Your task to perform on an android device: move an email to a new category in the gmail app Image 0: 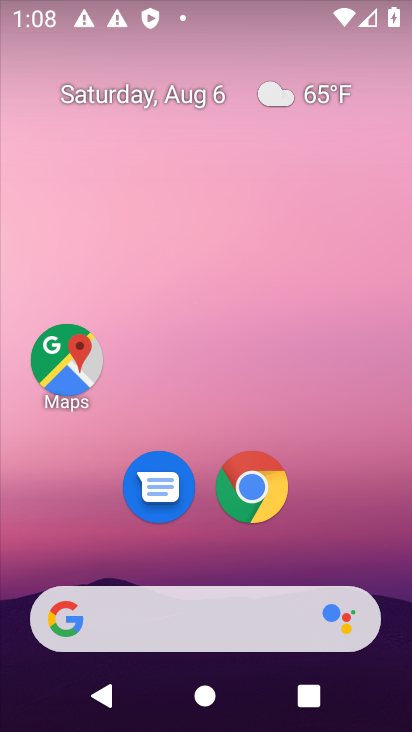
Step 0: drag from (258, 536) to (239, 117)
Your task to perform on an android device: move an email to a new category in the gmail app Image 1: 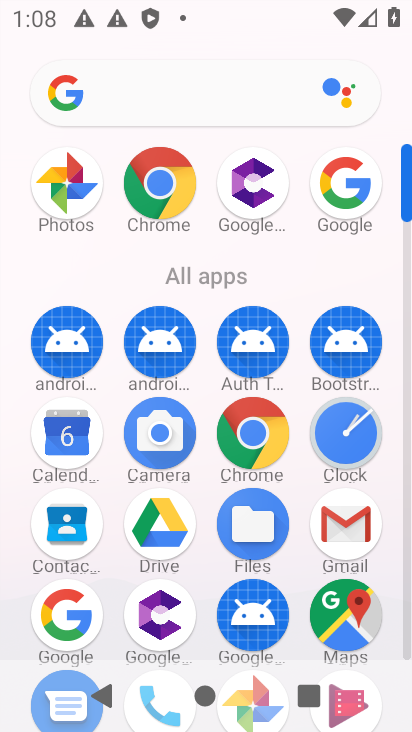
Step 1: click (346, 529)
Your task to perform on an android device: move an email to a new category in the gmail app Image 2: 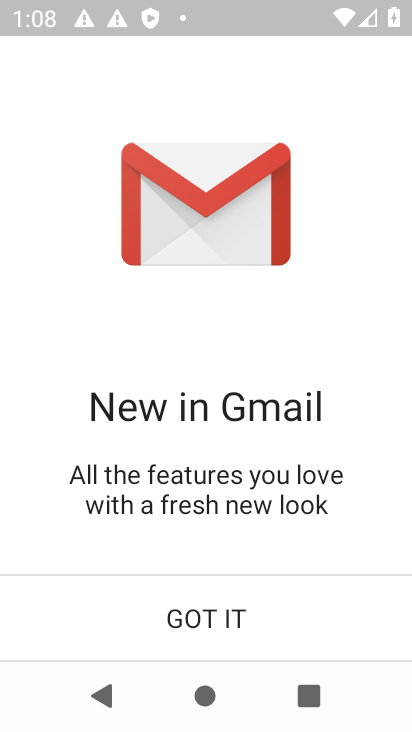
Step 2: click (213, 606)
Your task to perform on an android device: move an email to a new category in the gmail app Image 3: 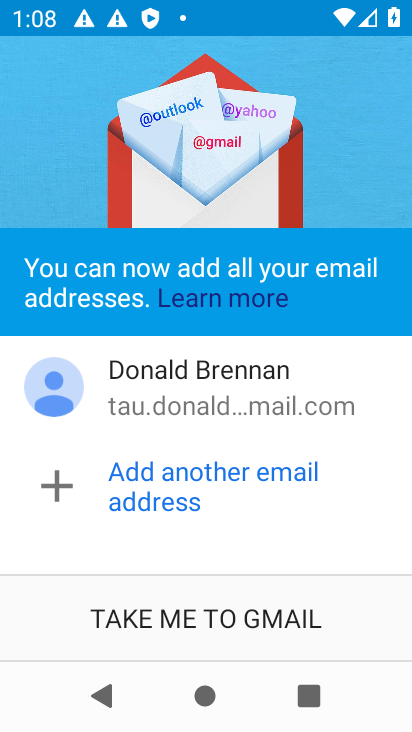
Step 3: click (158, 610)
Your task to perform on an android device: move an email to a new category in the gmail app Image 4: 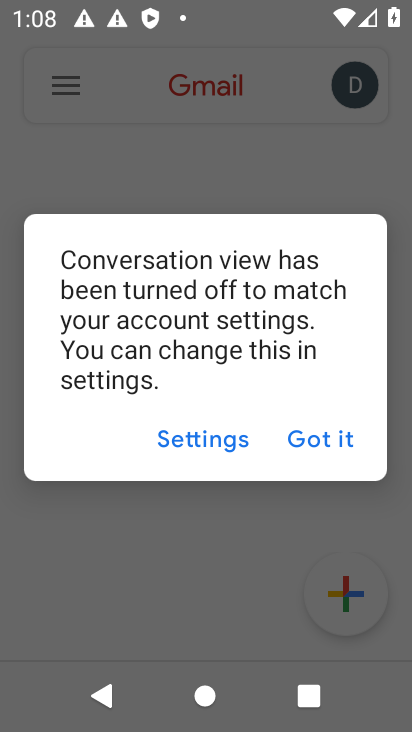
Step 4: click (301, 435)
Your task to perform on an android device: move an email to a new category in the gmail app Image 5: 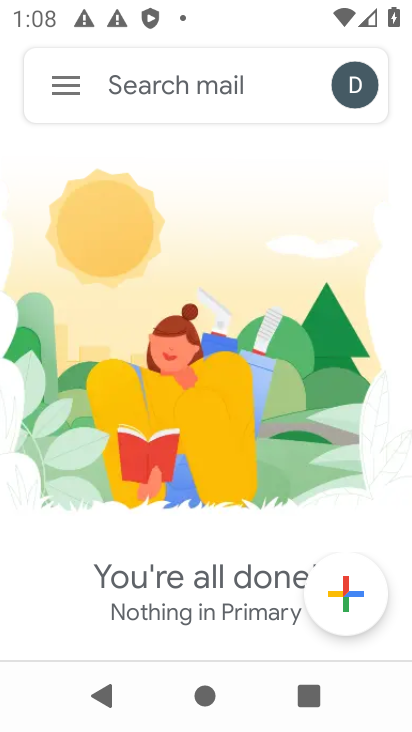
Step 5: click (55, 70)
Your task to perform on an android device: move an email to a new category in the gmail app Image 6: 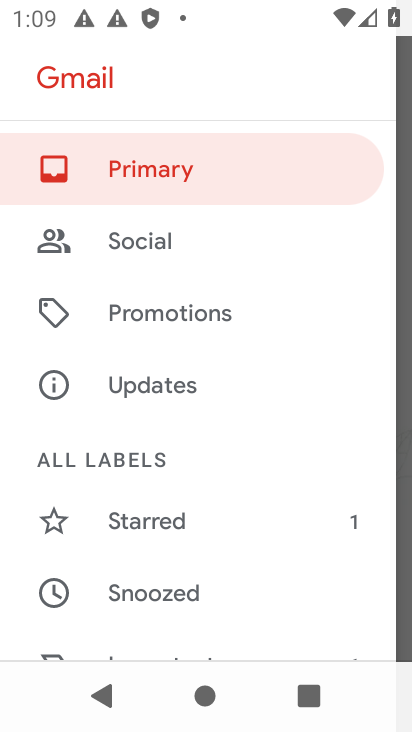
Step 6: drag from (248, 605) to (247, 167)
Your task to perform on an android device: move an email to a new category in the gmail app Image 7: 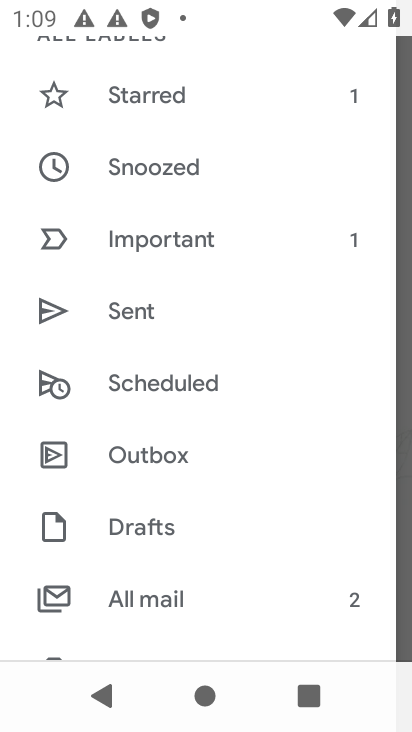
Step 7: drag from (241, 186) to (284, 615)
Your task to perform on an android device: move an email to a new category in the gmail app Image 8: 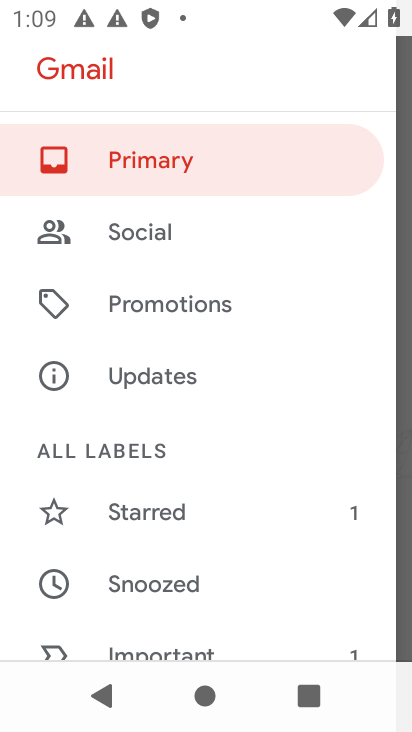
Step 8: drag from (187, 597) to (246, 225)
Your task to perform on an android device: move an email to a new category in the gmail app Image 9: 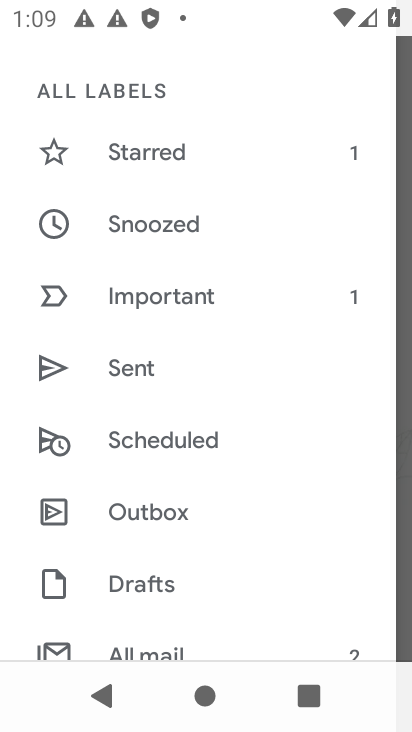
Step 9: drag from (192, 603) to (263, 261)
Your task to perform on an android device: move an email to a new category in the gmail app Image 10: 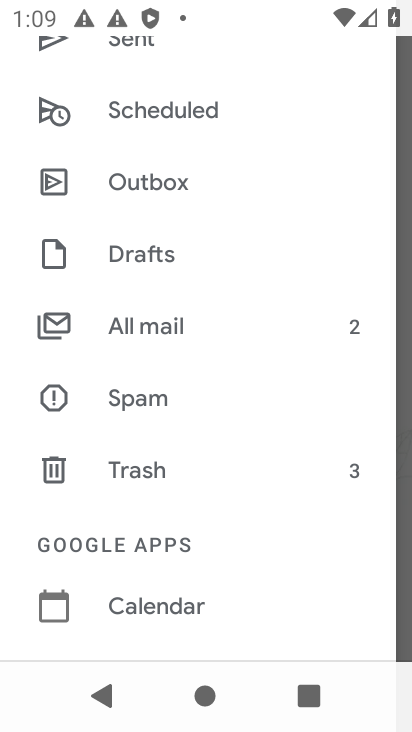
Step 10: click (171, 332)
Your task to perform on an android device: move an email to a new category in the gmail app Image 11: 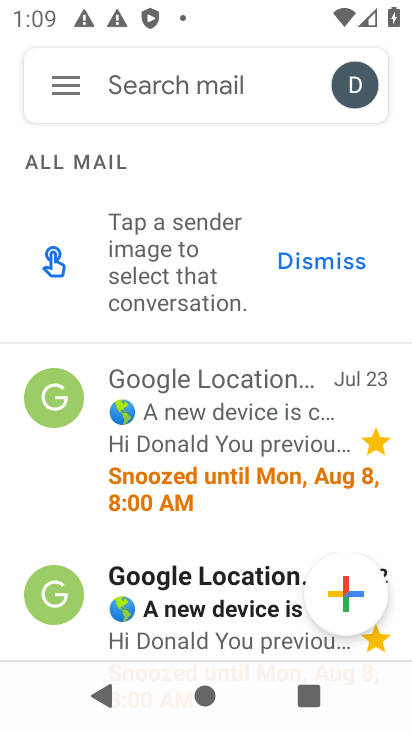
Step 11: drag from (102, 483) to (157, 214)
Your task to perform on an android device: move an email to a new category in the gmail app Image 12: 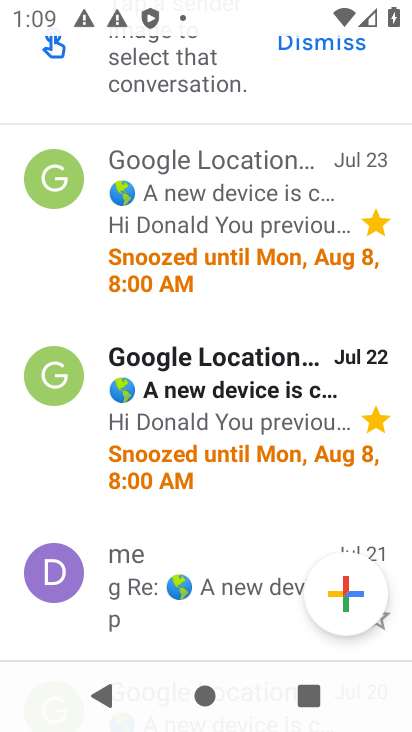
Step 12: click (234, 420)
Your task to perform on an android device: move an email to a new category in the gmail app Image 13: 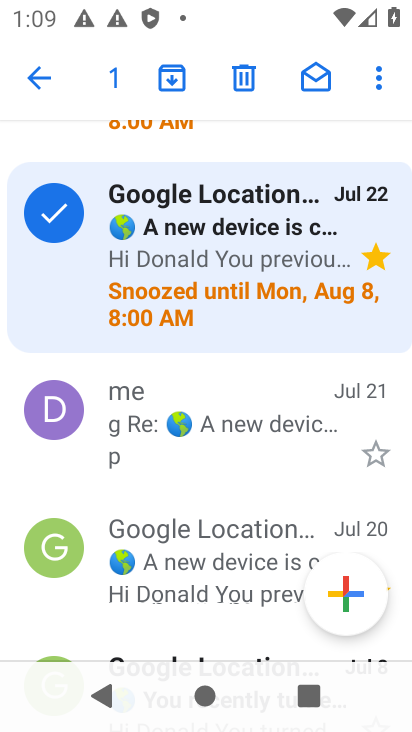
Step 13: click (368, 260)
Your task to perform on an android device: move an email to a new category in the gmail app Image 14: 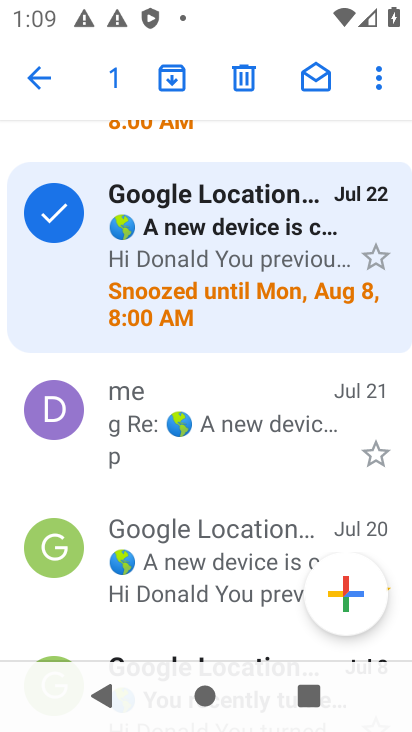
Step 14: task complete